Your task to perform on an android device: empty trash in the gmail app Image 0: 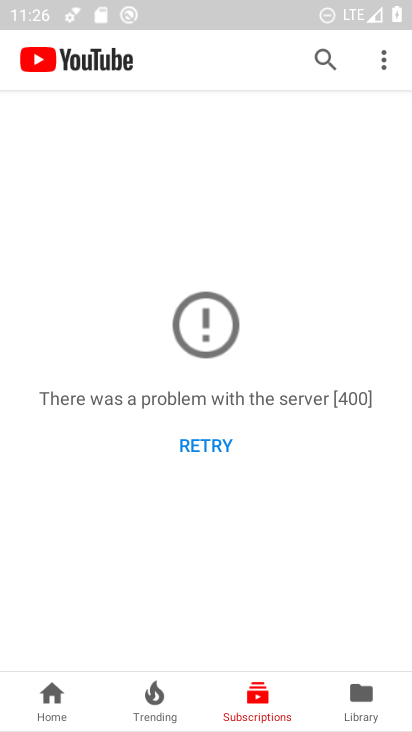
Step 0: press home button
Your task to perform on an android device: empty trash in the gmail app Image 1: 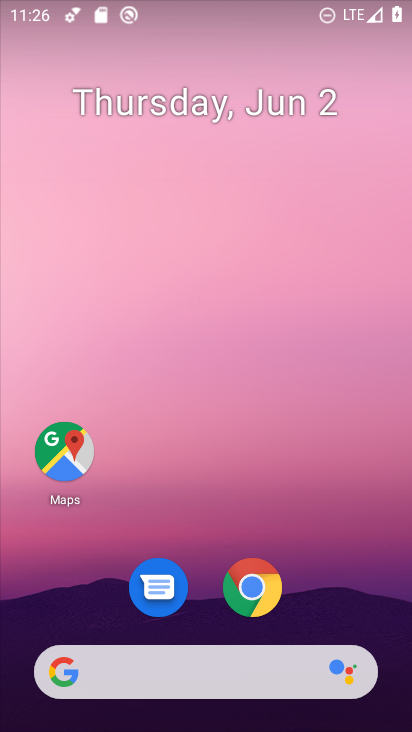
Step 1: drag from (351, 583) to (257, 120)
Your task to perform on an android device: empty trash in the gmail app Image 2: 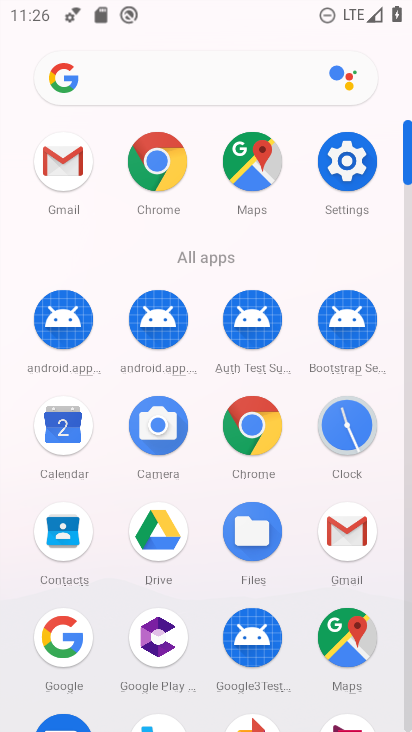
Step 2: click (55, 163)
Your task to perform on an android device: empty trash in the gmail app Image 3: 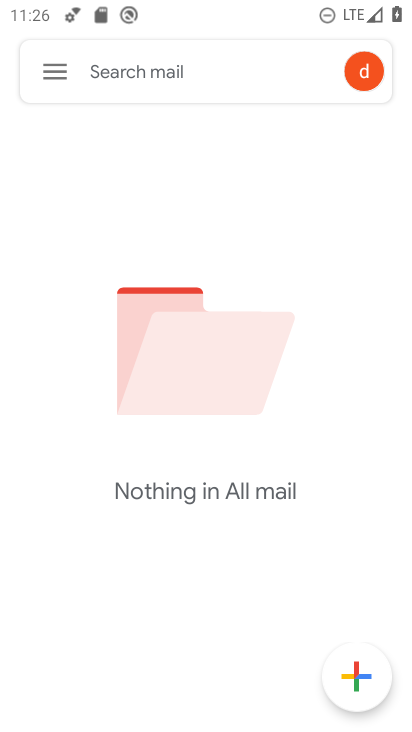
Step 3: click (51, 85)
Your task to perform on an android device: empty trash in the gmail app Image 4: 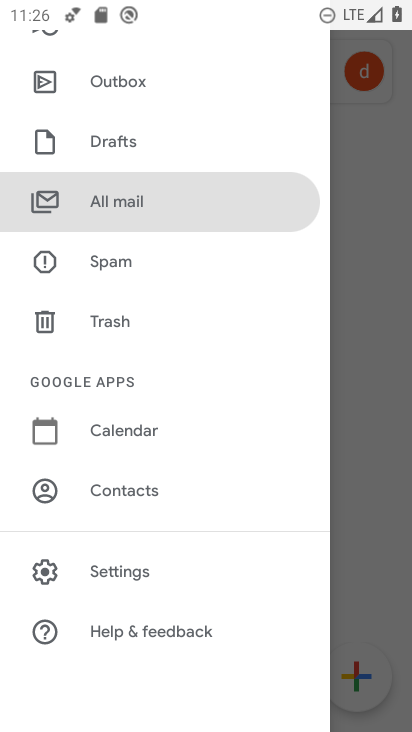
Step 4: click (115, 330)
Your task to perform on an android device: empty trash in the gmail app Image 5: 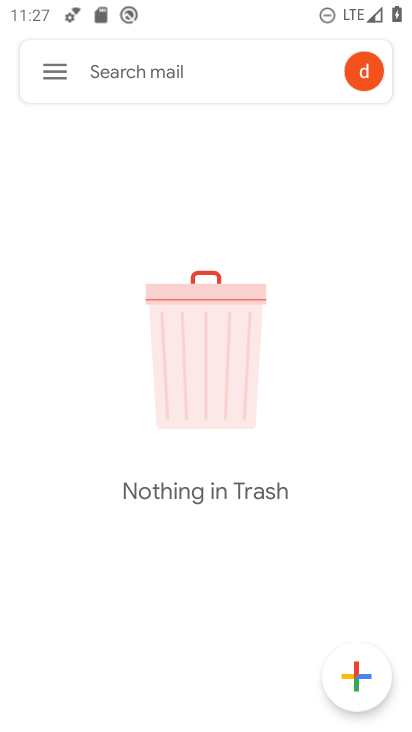
Step 5: click (57, 88)
Your task to perform on an android device: empty trash in the gmail app Image 6: 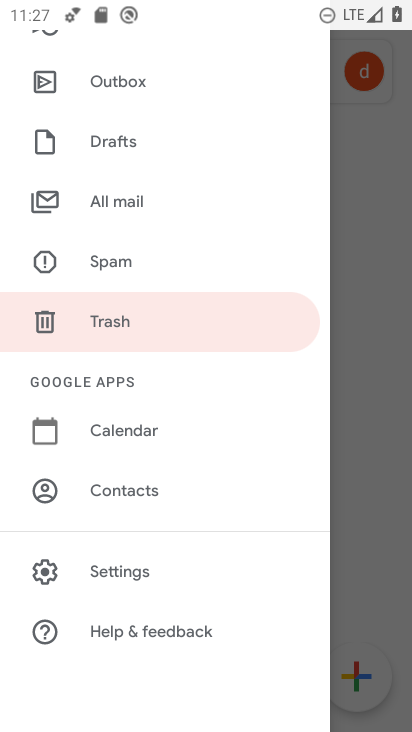
Step 6: click (136, 325)
Your task to perform on an android device: empty trash in the gmail app Image 7: 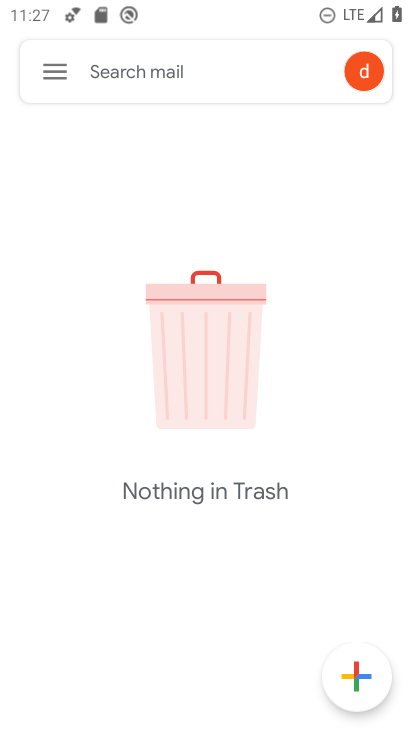
Step 7: task complete